Your task to perform on an android device: Add "lenovo thinkpad" to the cart on amazon.com Image 0: 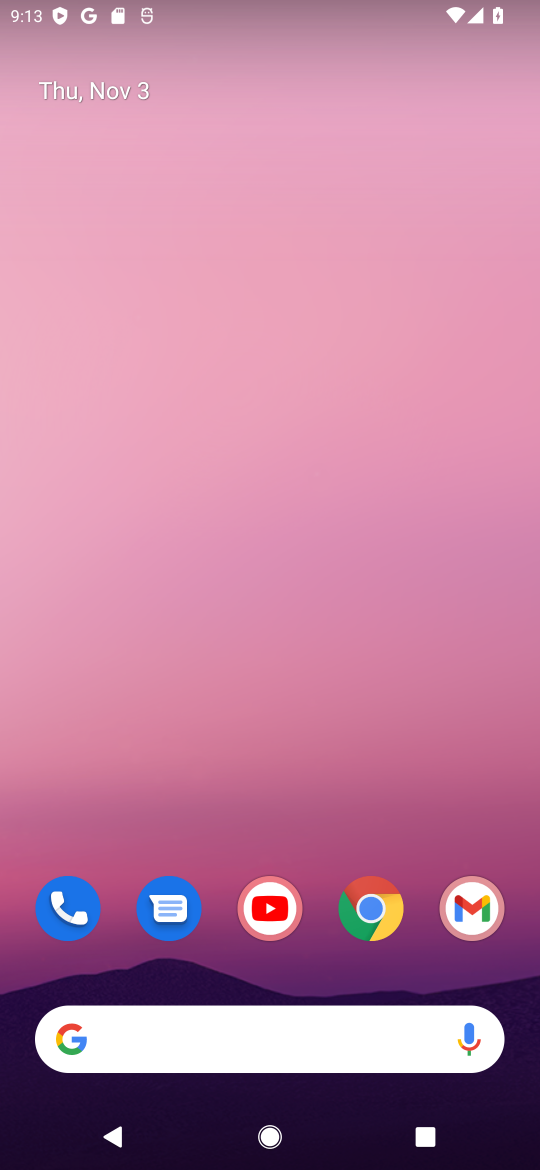
Step 0: click (378, 904)
Your task to perform on an android device: Add "lenovo thinkpad" to the cart on amazon.com Image 1: 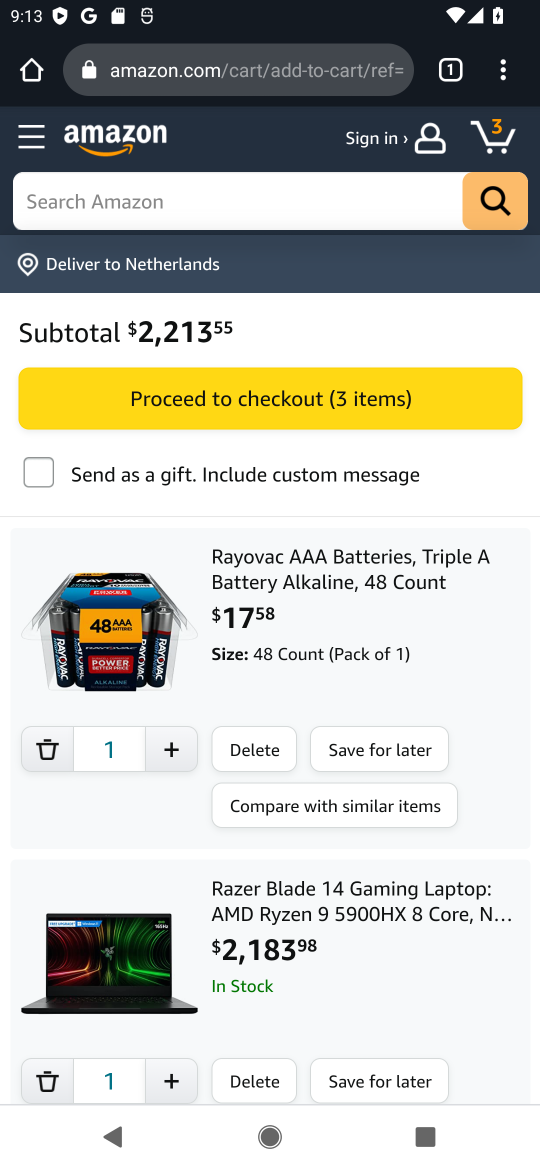
Step 1: click (377, 198)
Your task to perform on an android device: Add "lenovo thinkpad" to the cart on amazon.com Image 2: 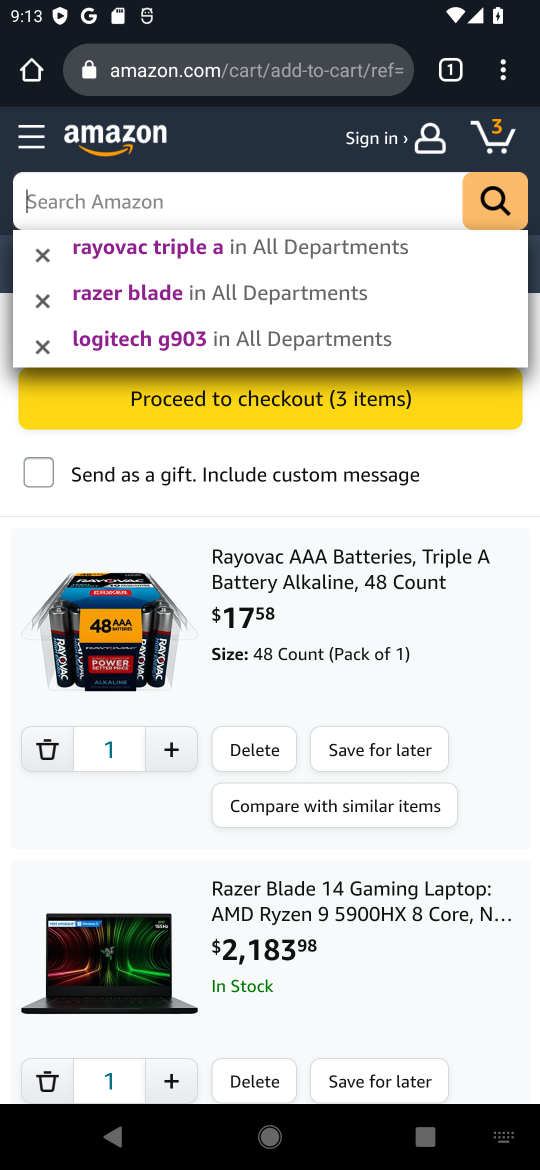
Step 2: type "lenovo thinkpad"
Your task to perform on an android device: Add "lenovo thinkpad" to the cart on amazon.com Image 3: 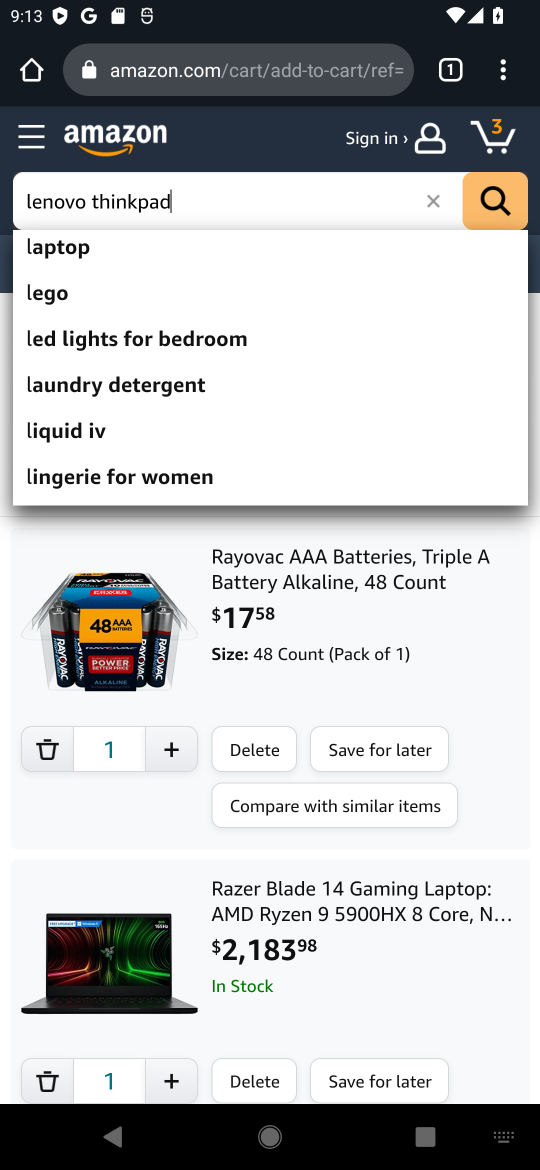
Step 3: press enter
Your task to perform on an android device: Add "lenovo thinkpad" to the cart on amazon.com Image 4: 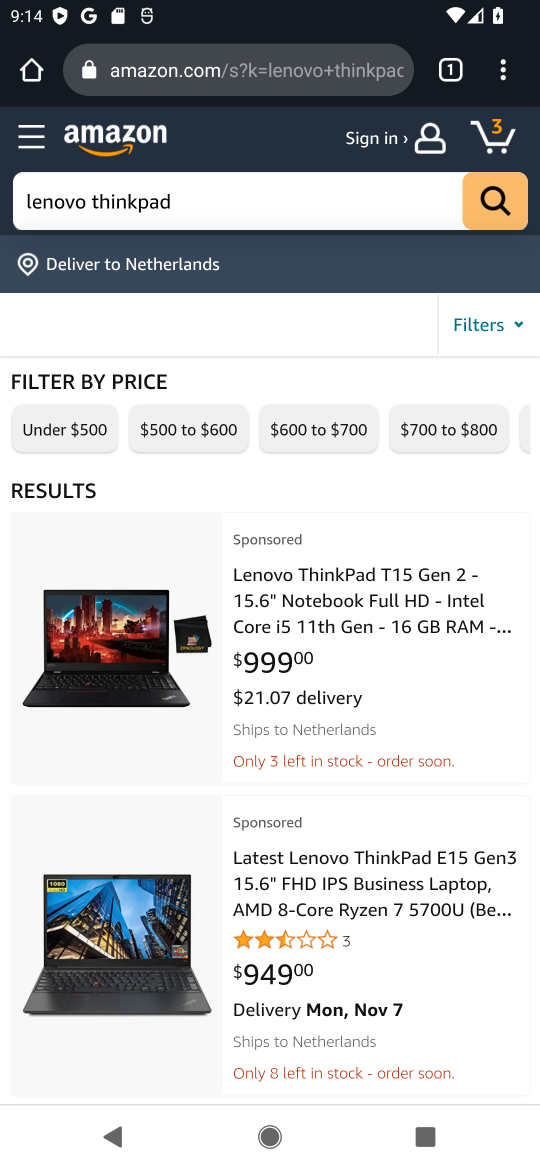
Step 4: click (89, 631)
Your task to perform on an android device: Add "lenovo thinkpad" to the cart on amazon.com Image 5: 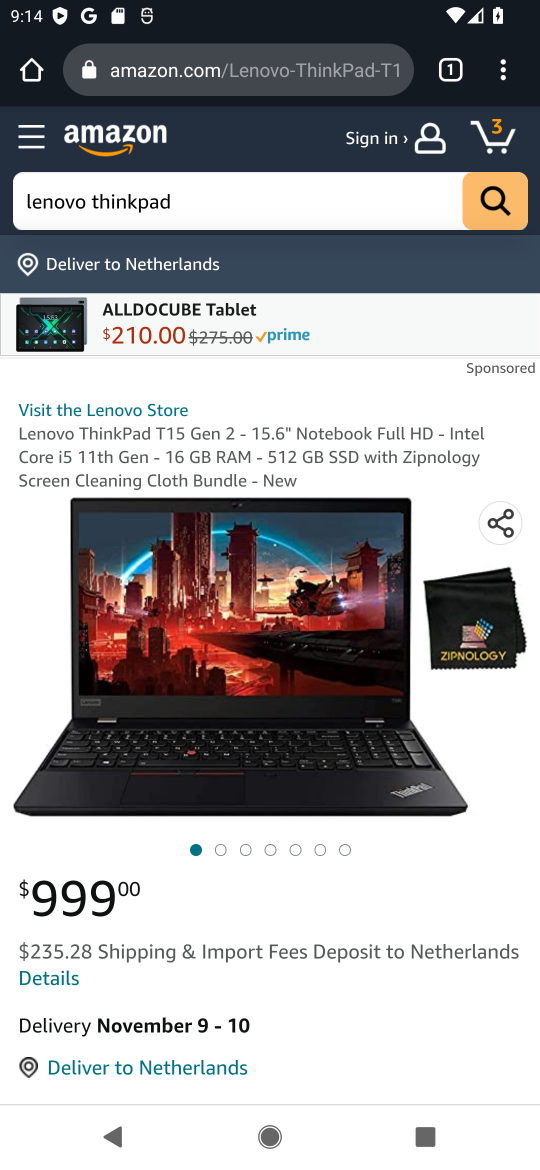
Step 5: drag from (425, 728) to (392, 405)
Your task to perform on an android device: Add "lenovo thinkpad" to the cart on amazon.com Image 6: 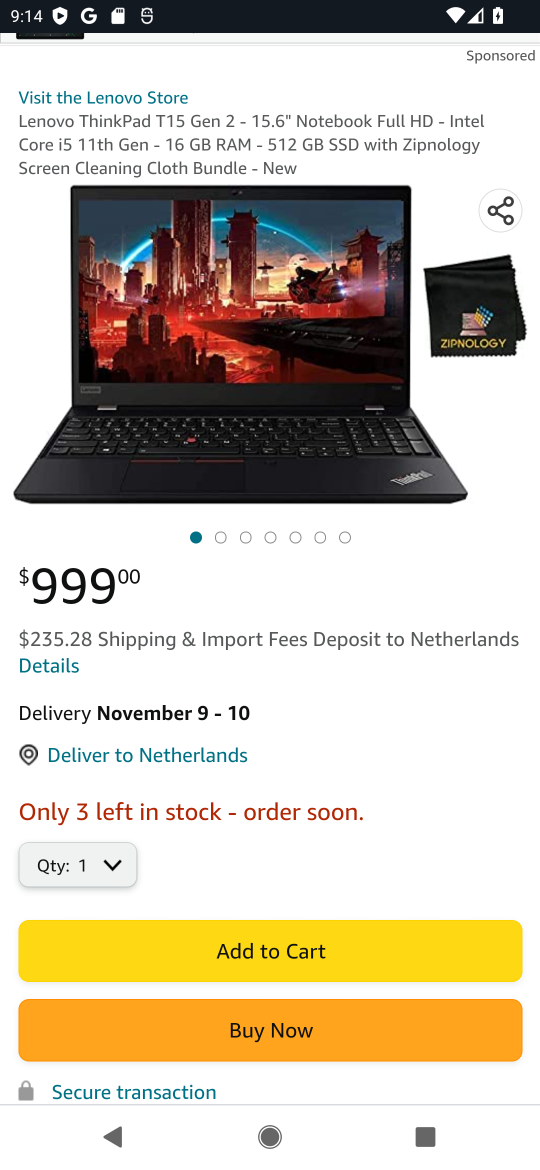
Step 6: click (344, 951)
Your task to perform on an android device: Add "lenovo thinkpad" to the cart on amazon.com Image 7: 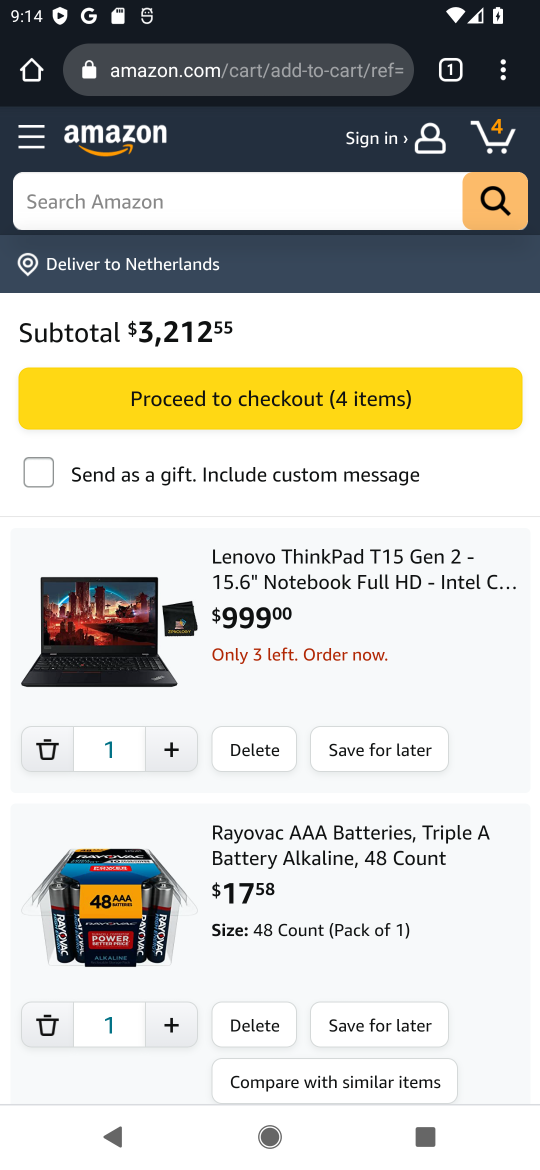
Step 7: task complete